Your task to perform on an android device: Open Google Chrome and open the bookmarks view Image 0: 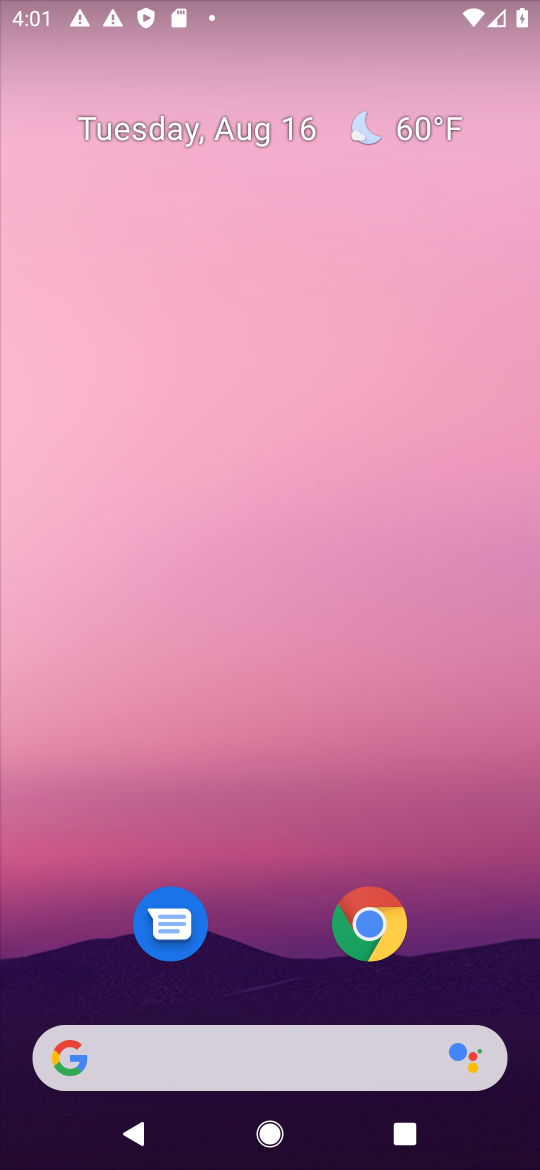
Step 0: click (367, 917)
Your task to perform on an android device: Open Google Chrome and open the bookmarks view Image 1: 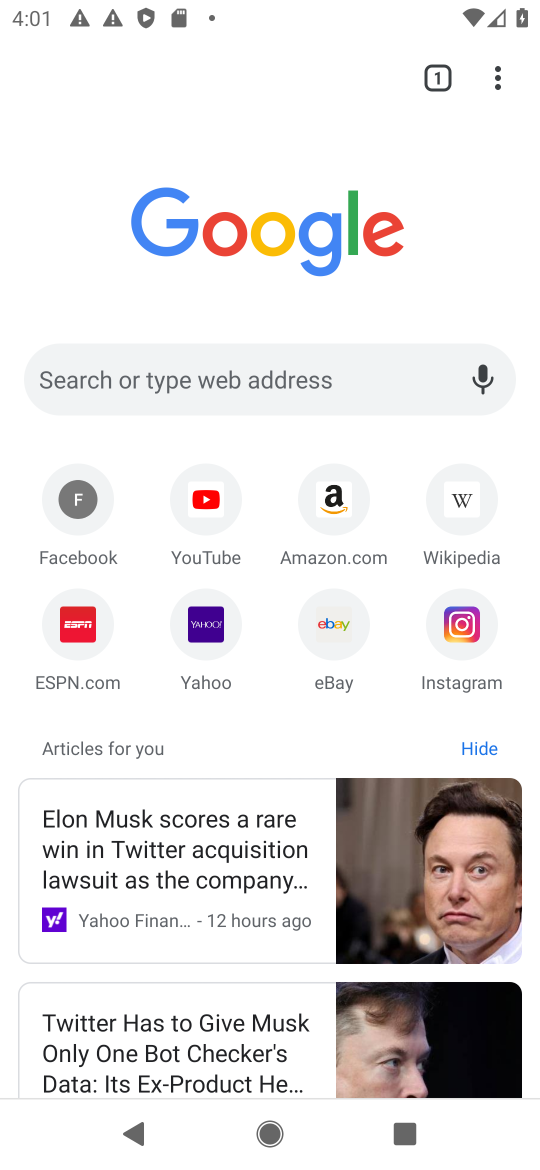
Step 1: click (503, 84)
Your task to perform on an android device: Open Google Chrome and open the bookmarks view Image 2: 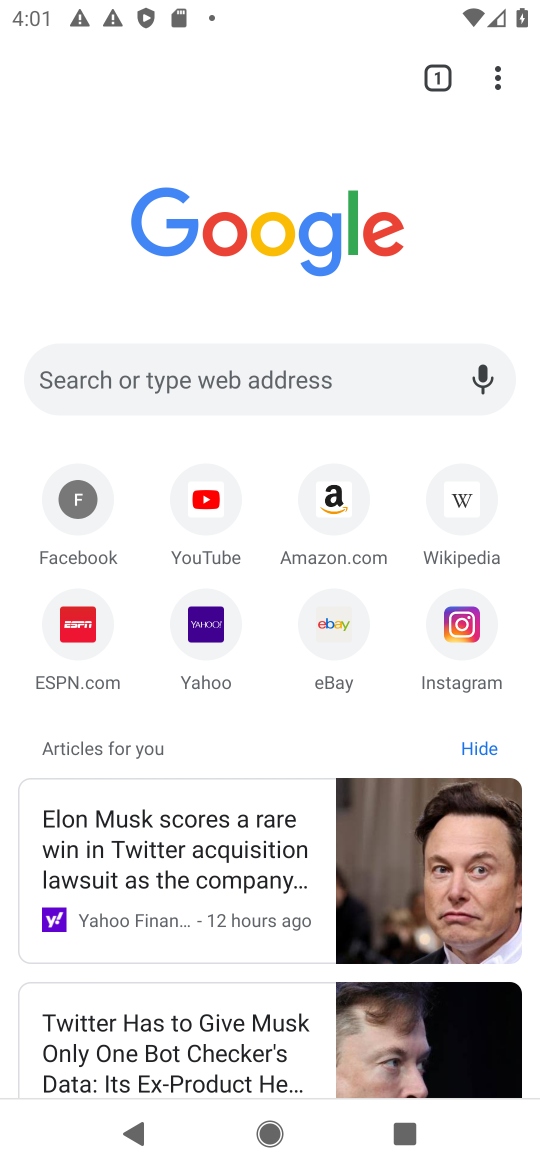
Step 2: click (505, 70)
Your task to perform on an android device: Open Google Chrome and open the bookmarks view Image 3: 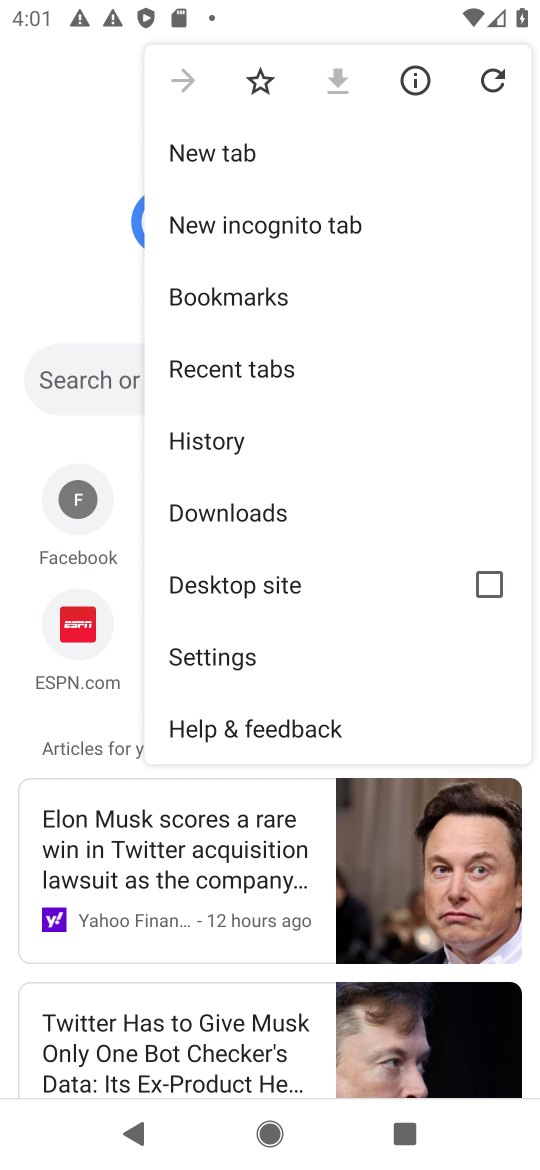
Step 3: click (249, 293)
Your task to perform on an android device: Open Google Chrome and open the bookmarks view Image 4: 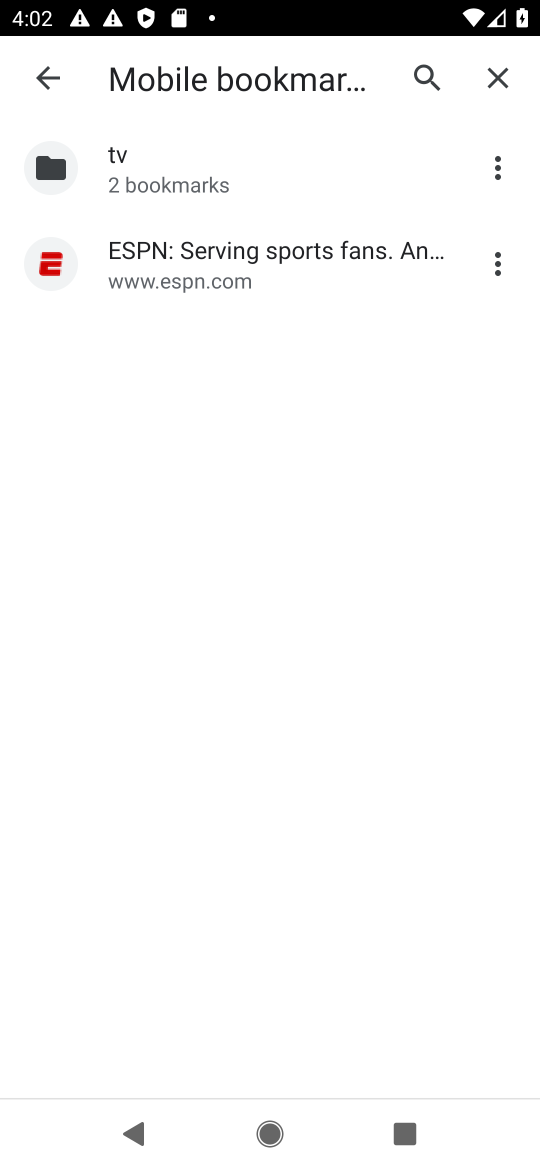
Step 4: task complete